Your task to perform on an android device: add a label to a message in the gmail app Image 0: 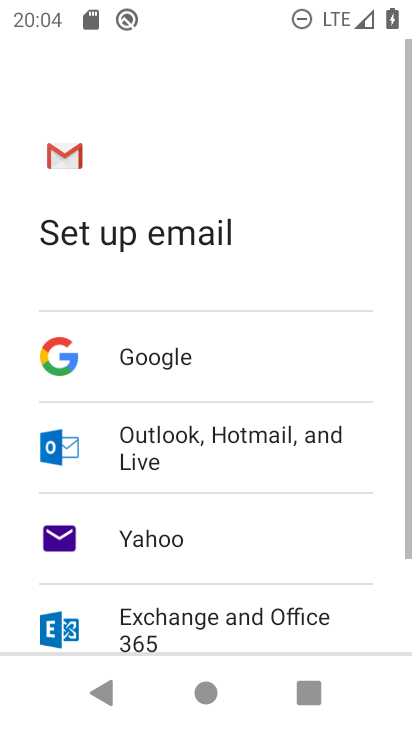
Step 0: press home button
Your task to perform on an android device: add a label to a message in the gmail app Image 1: 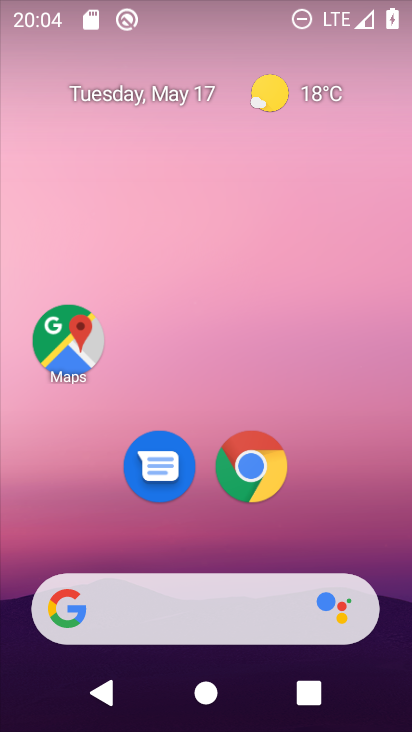
Step 1: drag from (197, 615) to (304, 242)
Your task to perform on an android device: add a label to a message in the gmail app Image 2: 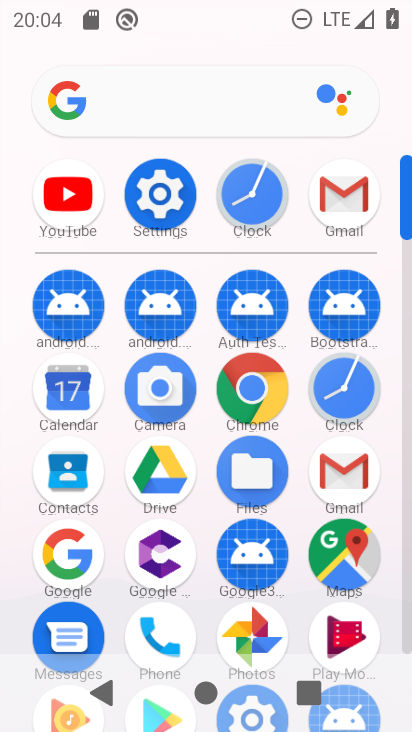
Step 2: click (343, 209)
Your task to perform on an android device: add a label to a message in the gmail app Image 3: 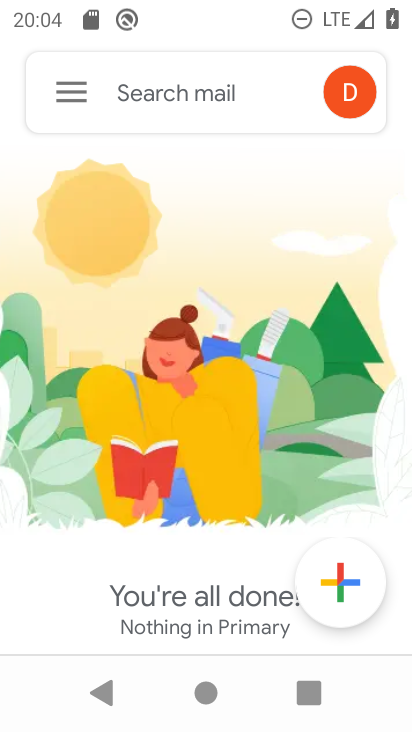
Step 3: task complete